Your task to perform on an android device: What's the weather going to be tomorrow? Image 0: 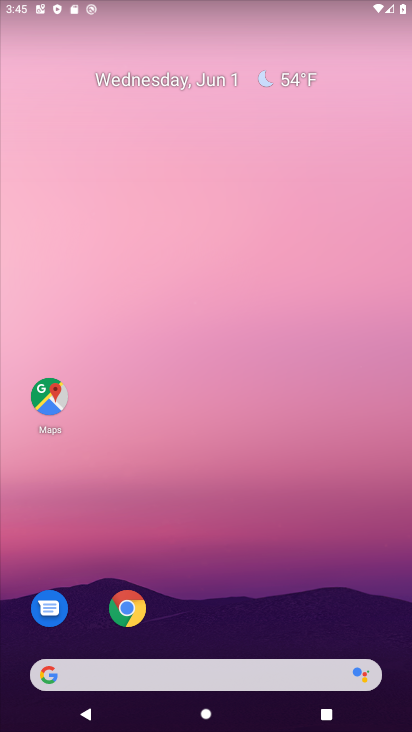
Step 0: click (140, 671)
Your task to perform on an android device: What's the weather going to be tomorrow? Image 1: 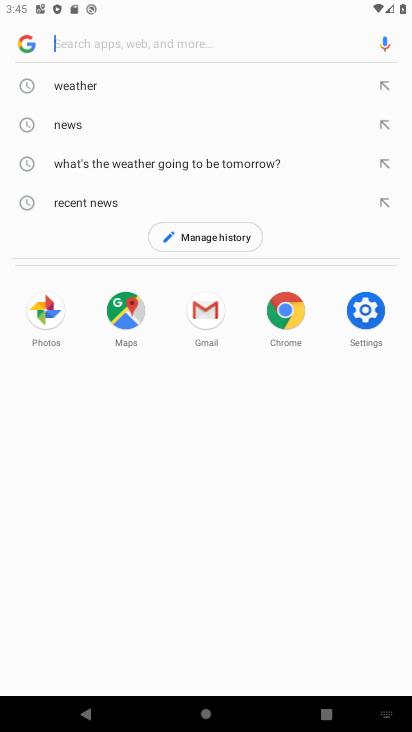
Step 1: click (174, 164)
Your task to perform on an android device: What's the weather going to be tomorrow? Image 2: 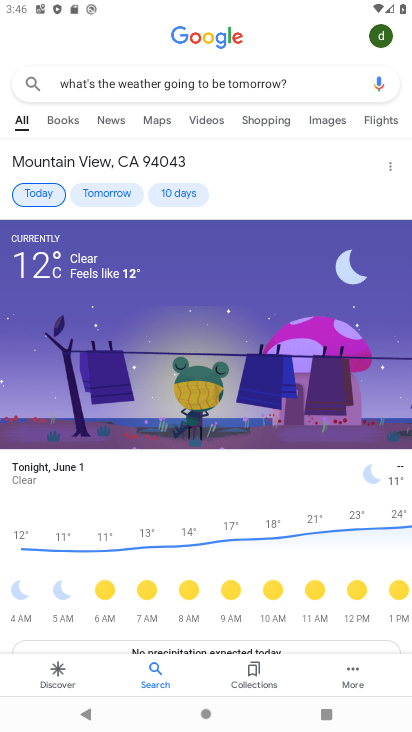
Step 2: task complete